Your task to perform on an android device: change the clock style Image 0: 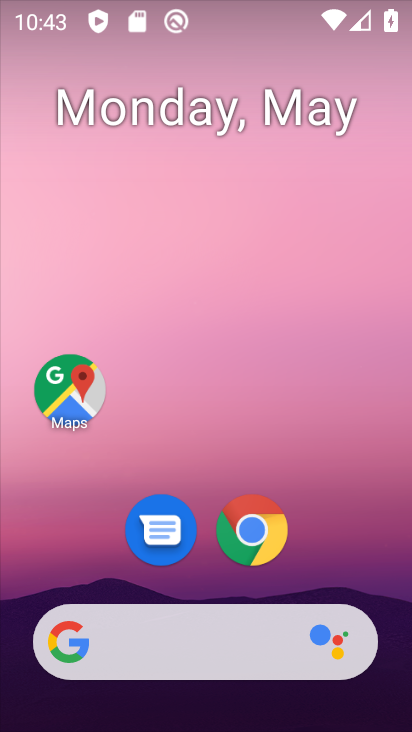
Step 0: drag from (331, 519) to (259, 24)
Your task to perform on an android device: change the clock style Image 1: 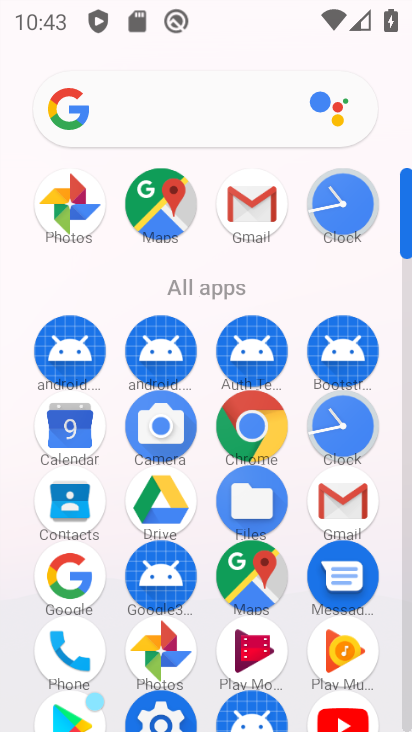
Step 1: drag from (24, 500) to (17, 193)
Your task to perform on an android device: change the clock style Image 2: 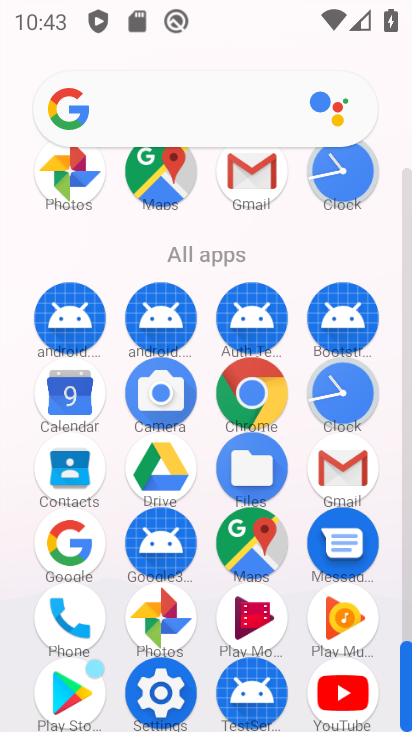
Step 2: drag from (0, 546) to (19, 240)
Your task to perform on an android device: change the clock style Image 3: 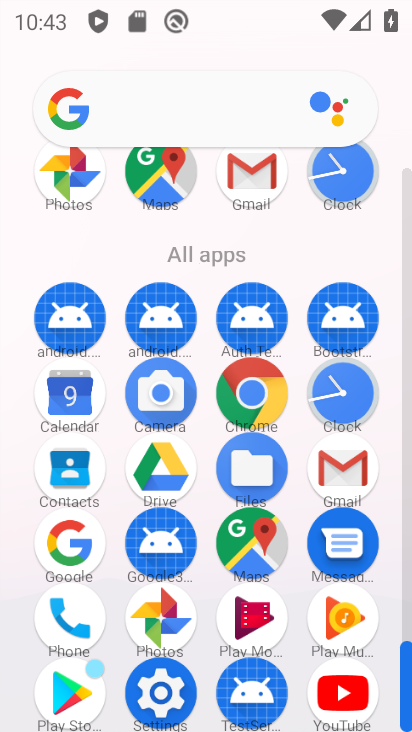
Step 3: click (346, 167)
Your task to perform on an android device: change the clock style Image 4: 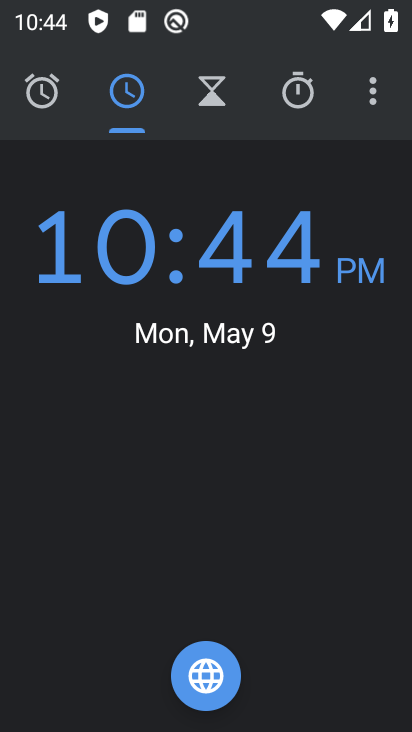
Step 4: drag from (377, 95) to (314, 164)
Your task to perform on an android device: change the clock style Image 5: 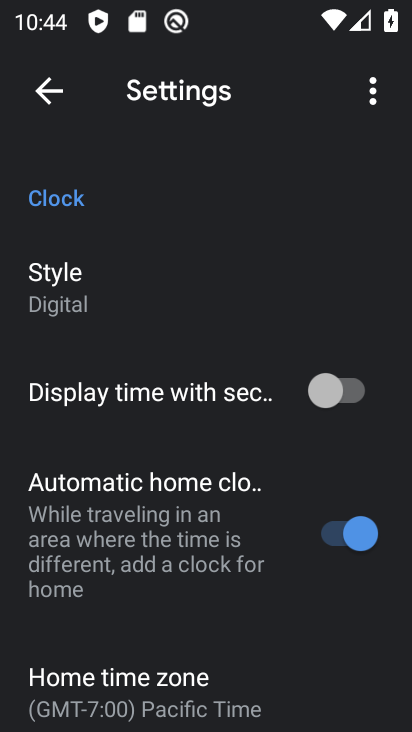
Step 5: click (145, 270)
Your task to perform on an android device: change the clock style Image 6: 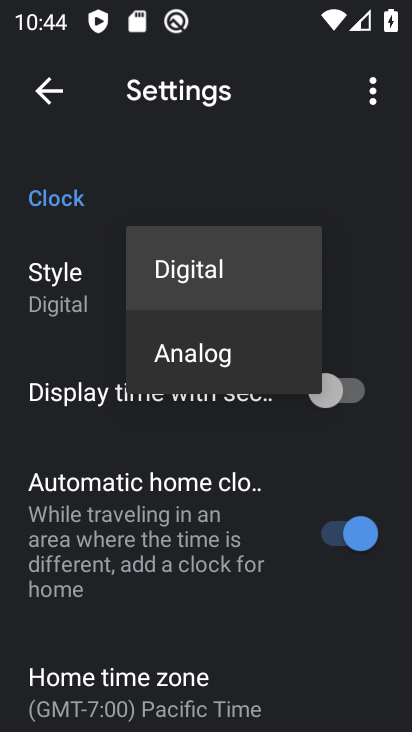
Step 6: click (197, 346)
Your task to perform on an android device: change the clock style Image 7: 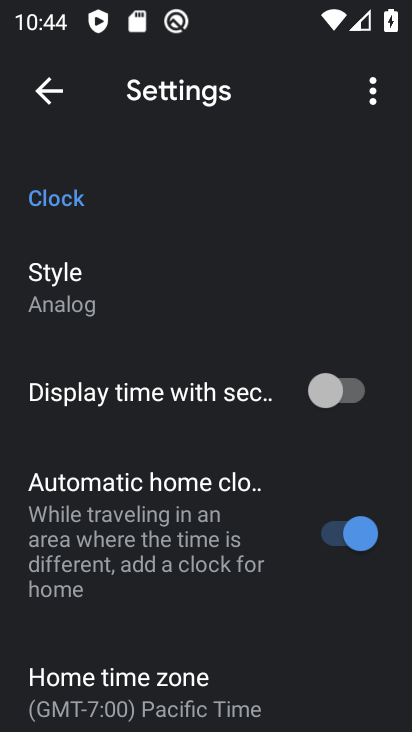
Step 7: task complete